Your task to perform on an android device: Open sound settings Image 0: 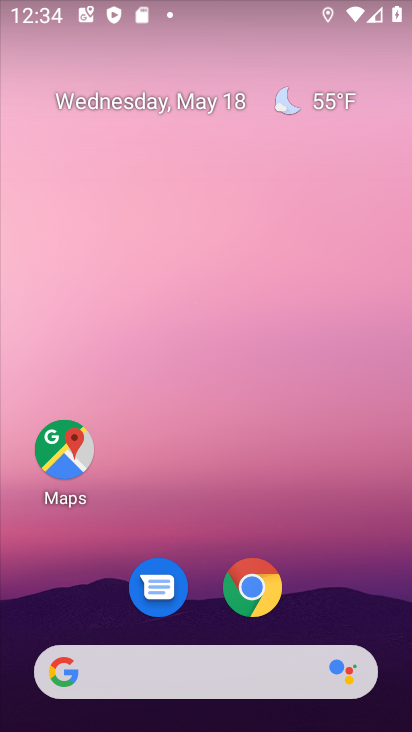
Step 0: drag from (308, 596) to (338, 159)
Your task to perform on an android device: Open sound settings Image 1: 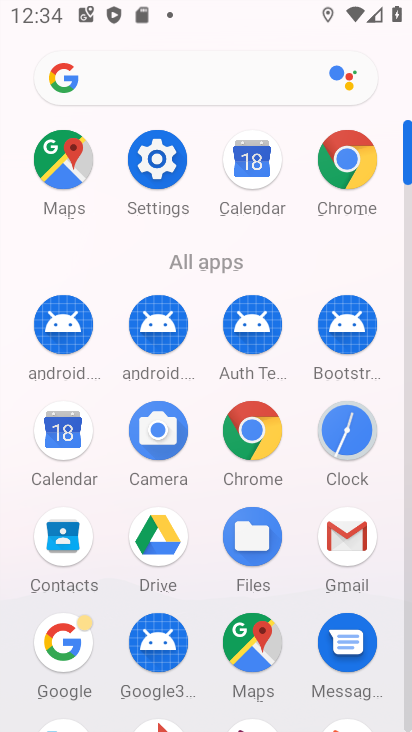
Step 1: click (164, 162)
Your task to perform on an android device: Open sound settings Image 2: 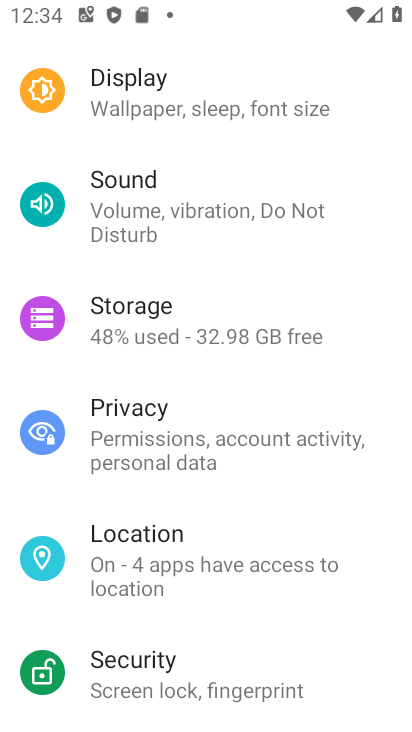
Step 2: click (143, 213)
Your task to perform on an android device: Open sound settings Image 3: 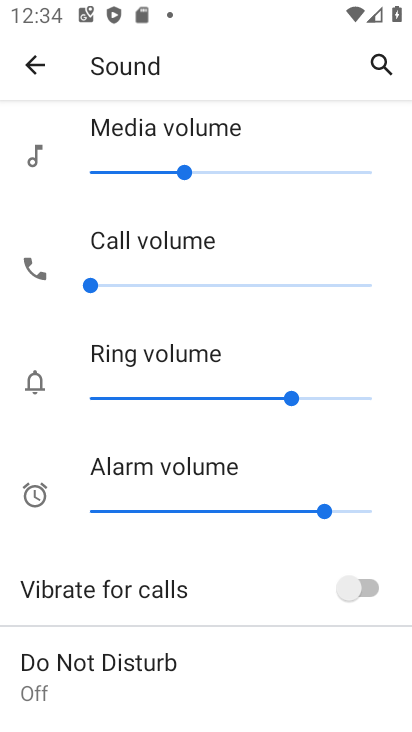
Step 3: task complete